Your task to perform on an android device: Go to Google Image 0: 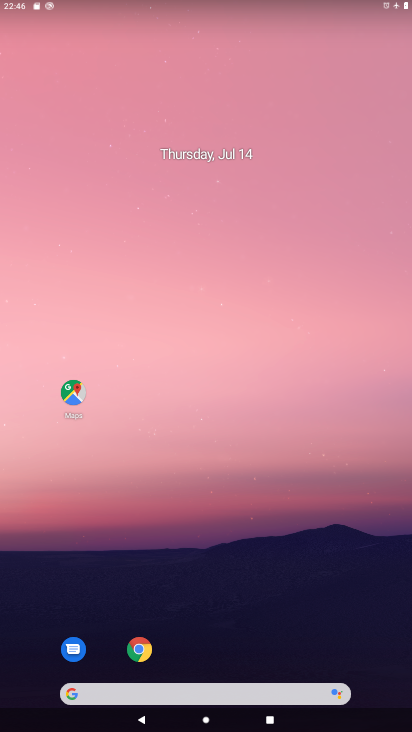
Step 0: drag from (179, 711) to (351, 148)
Your task to perform on an android device: Go to Google Image 1: 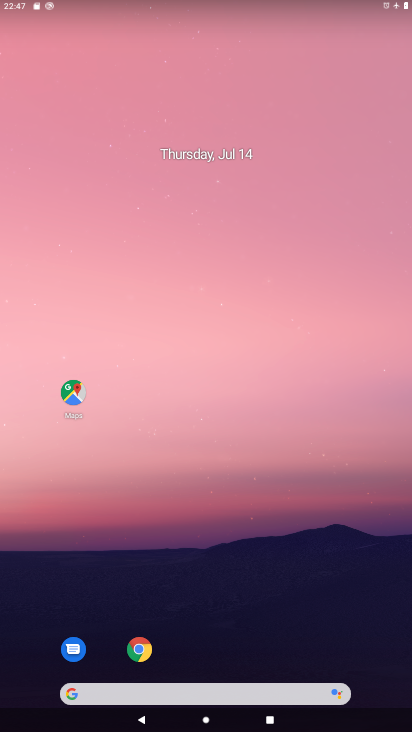
Step 1: drag from (172, 718) to (210, 109)
Your task to perform on an android device: Go to Google Image 2: 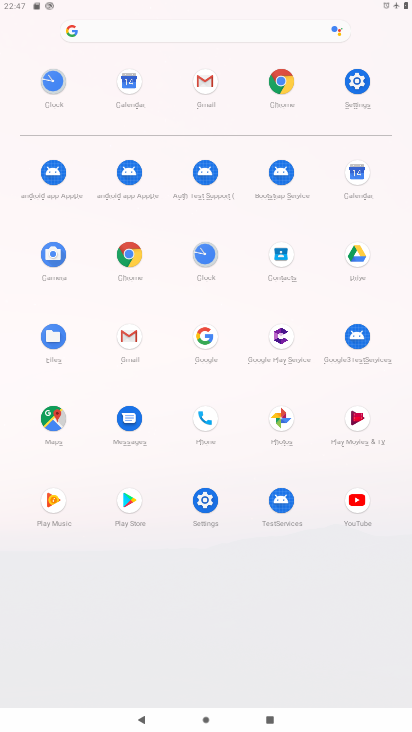
Step 2: click (204, 333)
Your task to perform on an android device: Go to Google Image 3: 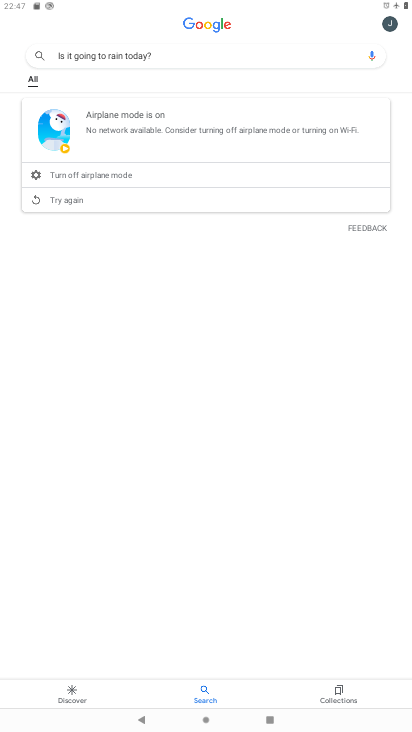
Step 3: task complete